Your task to perform on an android device: Open display settings Image 0: 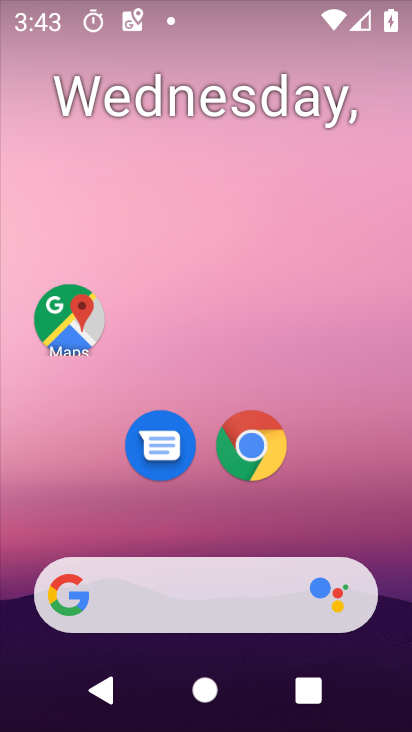
Step 0: drag from (198, 512) to (210, 79)
Your task to perform on an android device: Open display settings Image 1: 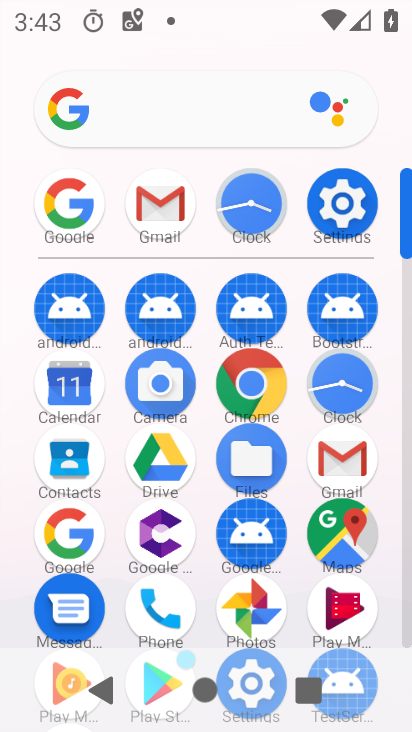
Step 1: click (336, 198)
Your task to perform on an android device: Open display settings Image 2: 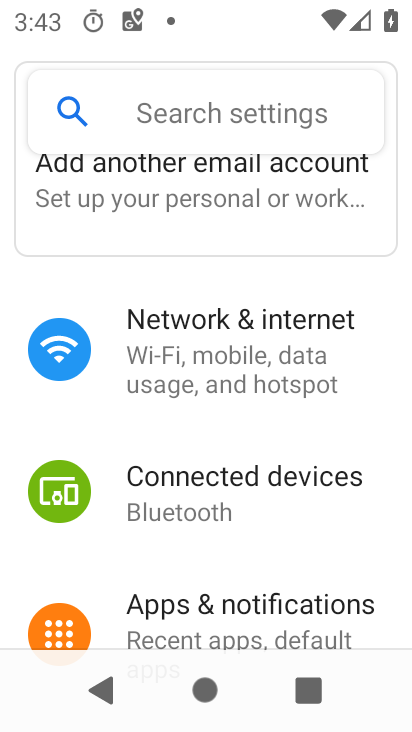
Step 2: drag from (228, 537) to (233, 12)
Your task to perform on an android device: Open display settings Image 3: 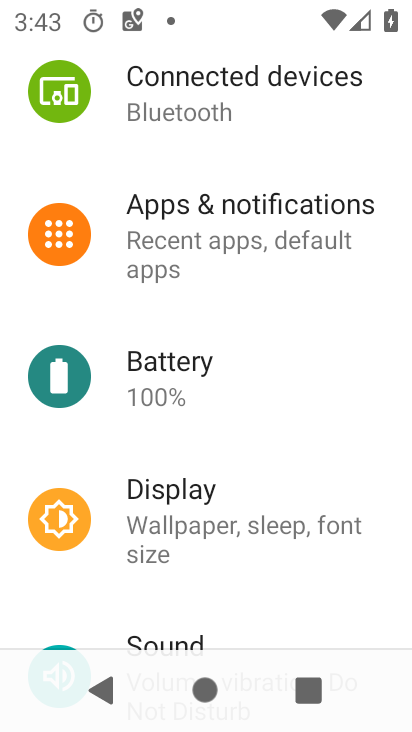
Step 3: click (205, 514)
Your task to perform on an android device: Open display settings Image 4: 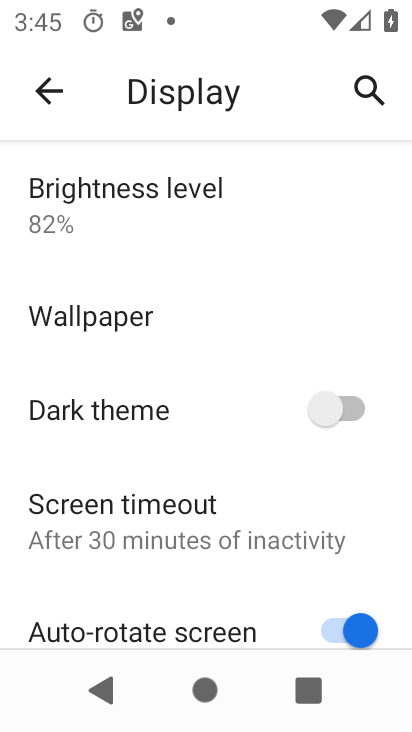
Step 4: task complete